Your task to perform on an android device: Search for the new nike air max shoes on Nike. Image 0: 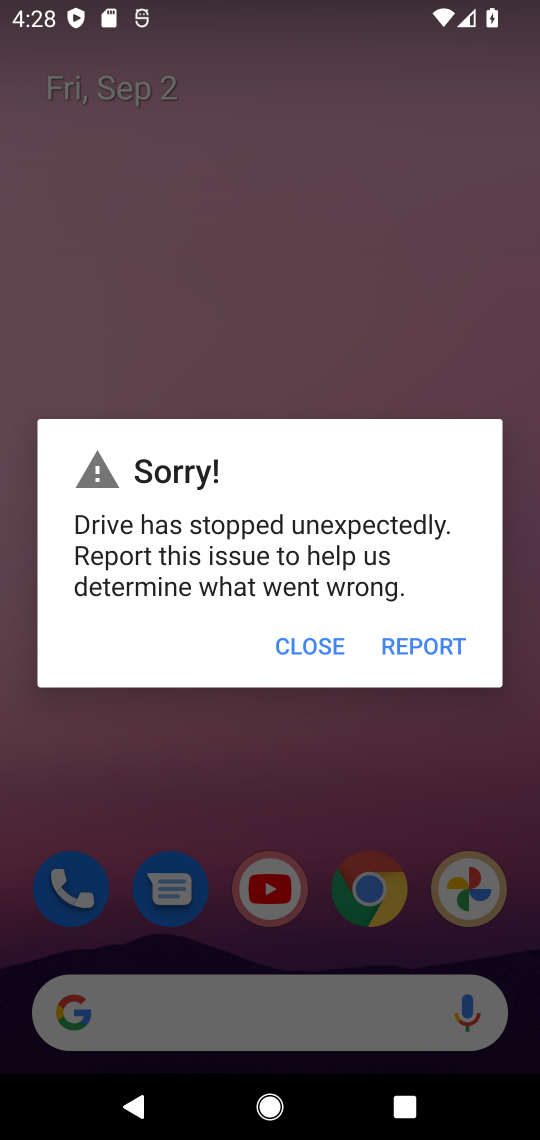
Step 0: click (297, 639)
Your task to perform on an android device: Search for the new nike air max shoes on Nike. Image 1: 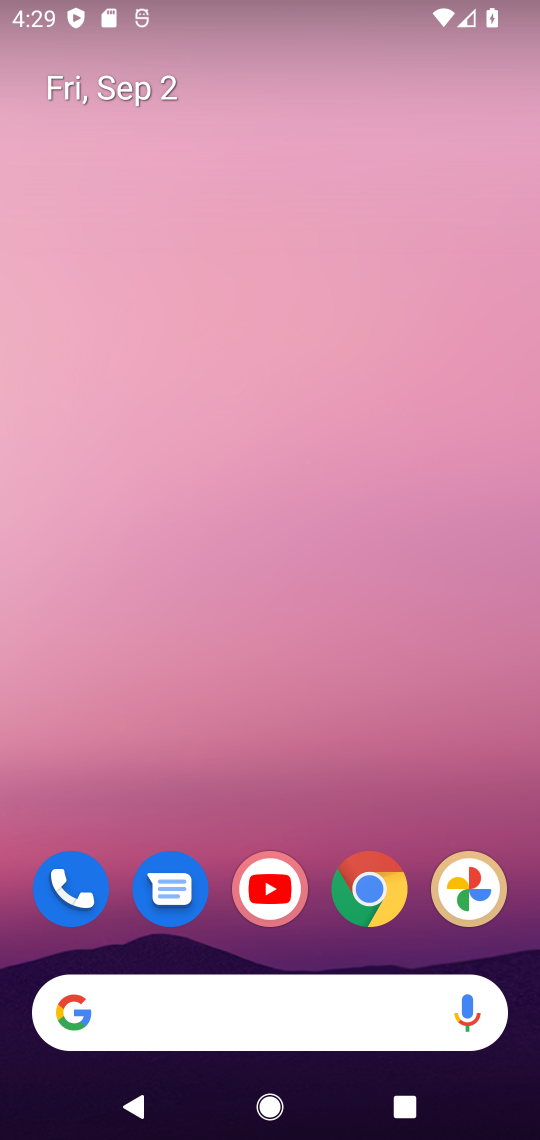
Step 1: click (385, 895)
Your task to perform on an android device: Search for the new nike air max shoes on Nike. Image 2: 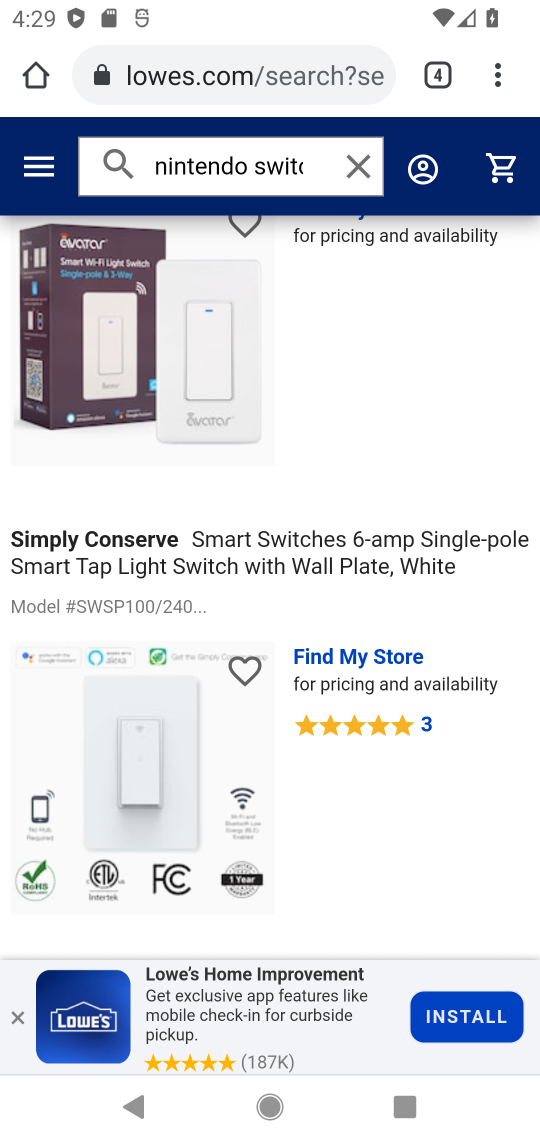
Step 2: click (364, 170)
Your task to perform on an android device: Search for the new nike air max shoes on Nike. Image 3: 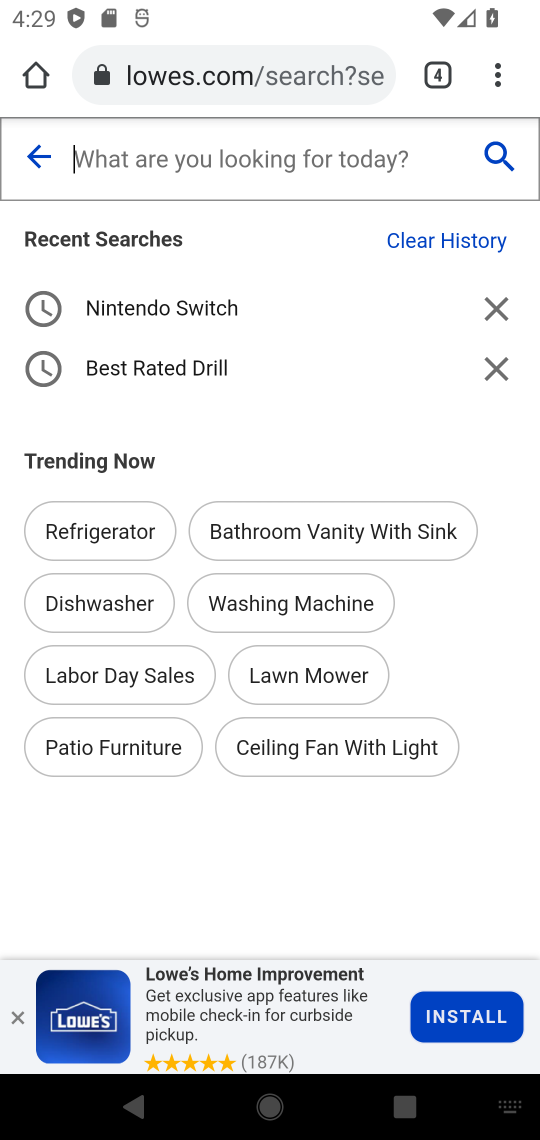
Step 3: click (439, 68)
Your task to perform on an android device: Search for the new nike air max shoes on Nike. Image 4: 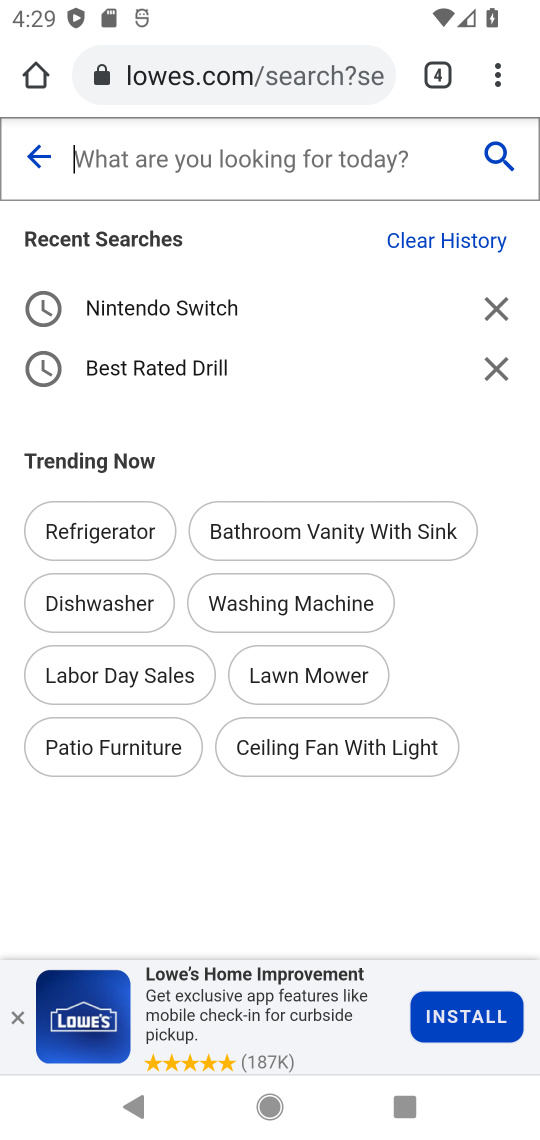
Step 4: click (449, 72)
Your task to perform on an android device: Search for the new nike air max shoes on Nike. Image 5: 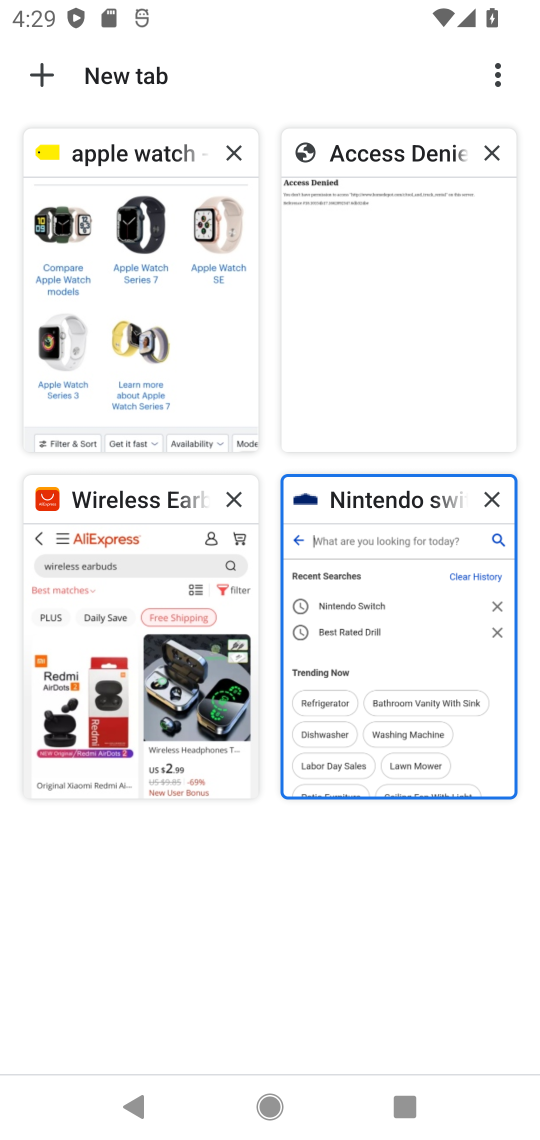
Step 5: click (32, 70)
Your task to perform on an android device: Search for the new nike air max shoes on Nike. Image 6: 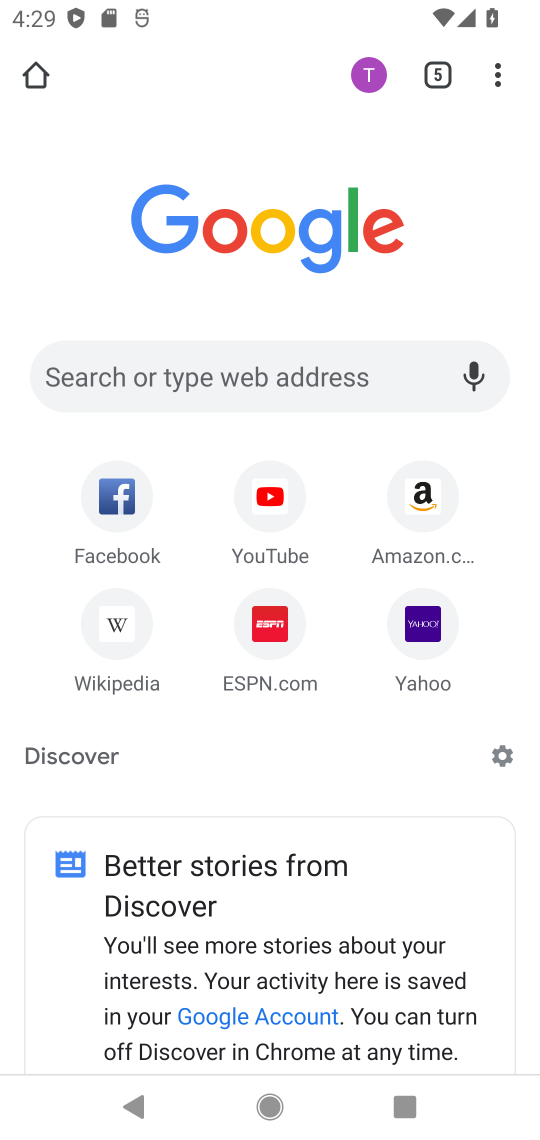
Step 6: click (248, 369)
Your task to perform on an android device: Search for the new nike air max shoes on Nike. Image 7: 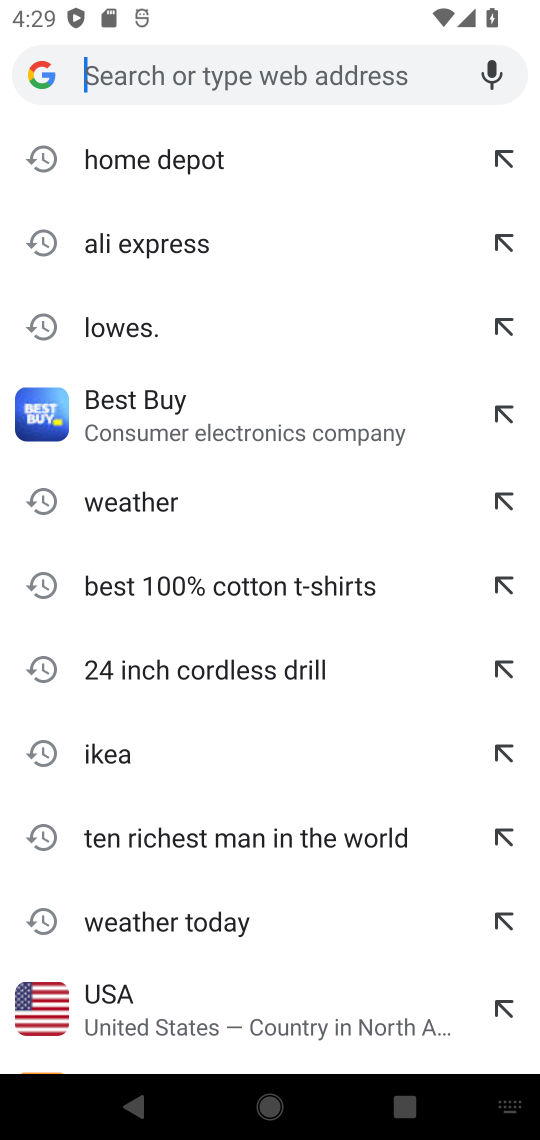
Step 7: type "Nike."
Your task to perform on an android device: Search for the new nike air max shoes on Nike. Image 8: 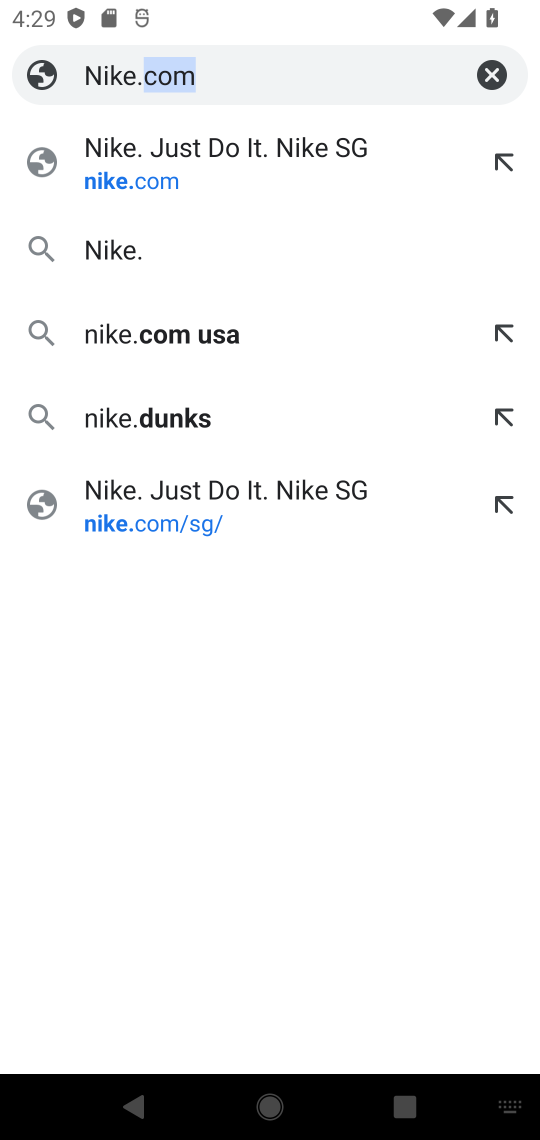
Step 8: click (172, 354)
Your task to perform on an android device: Search for the new nike air max shoes on Nike. Image 9: 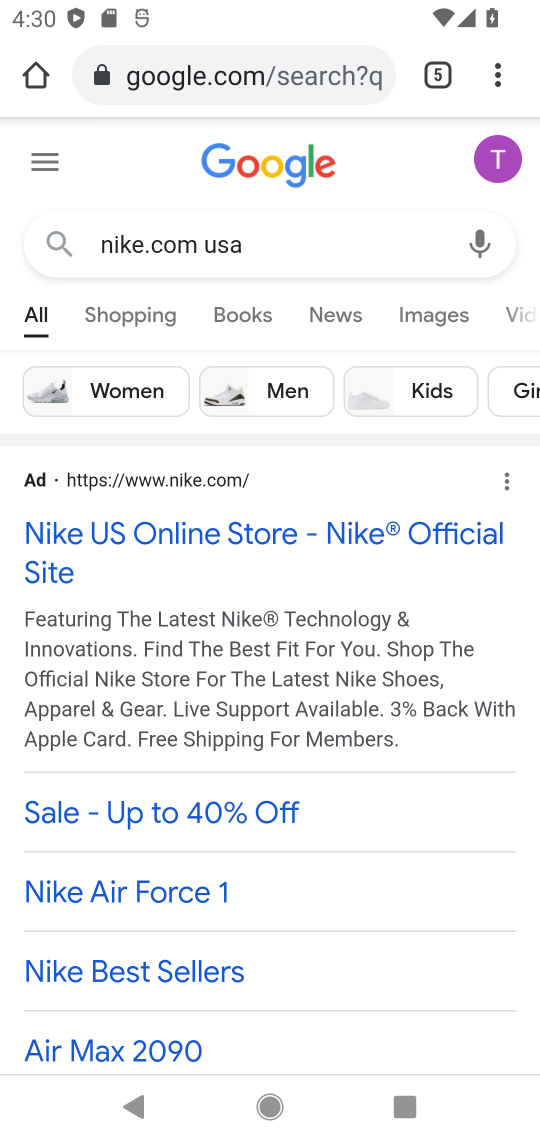
Step 9: drag from (173, 673) to (190, 424)
Your task to perform on an android device: Search for the new nike air max shoes on Nike. Image 10: 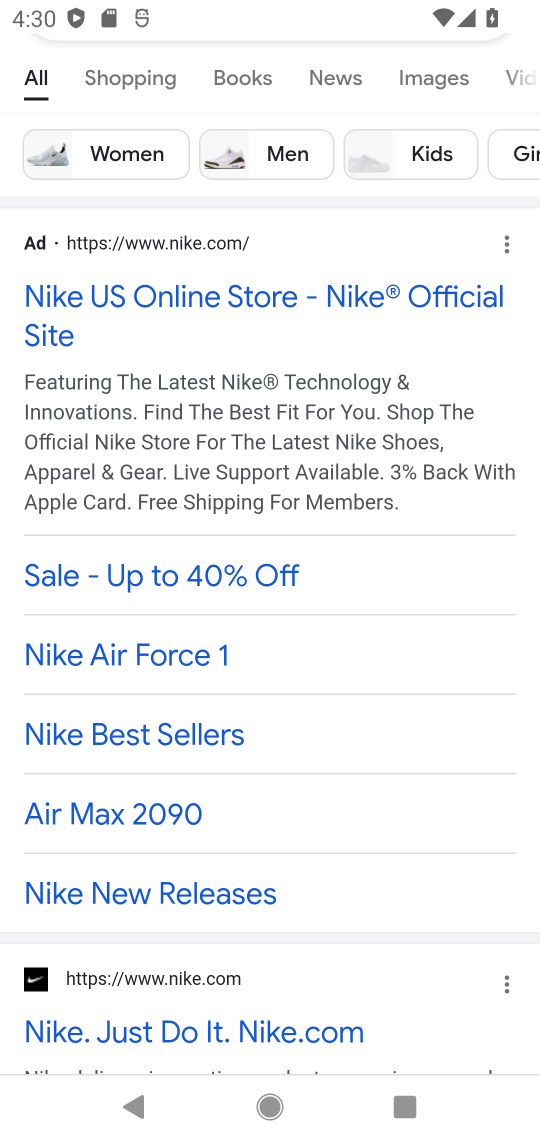
Step 10: click (202, 1025)
Your task to perform on an android device: Search for the new nike air max shoes on Nike. Image 11: 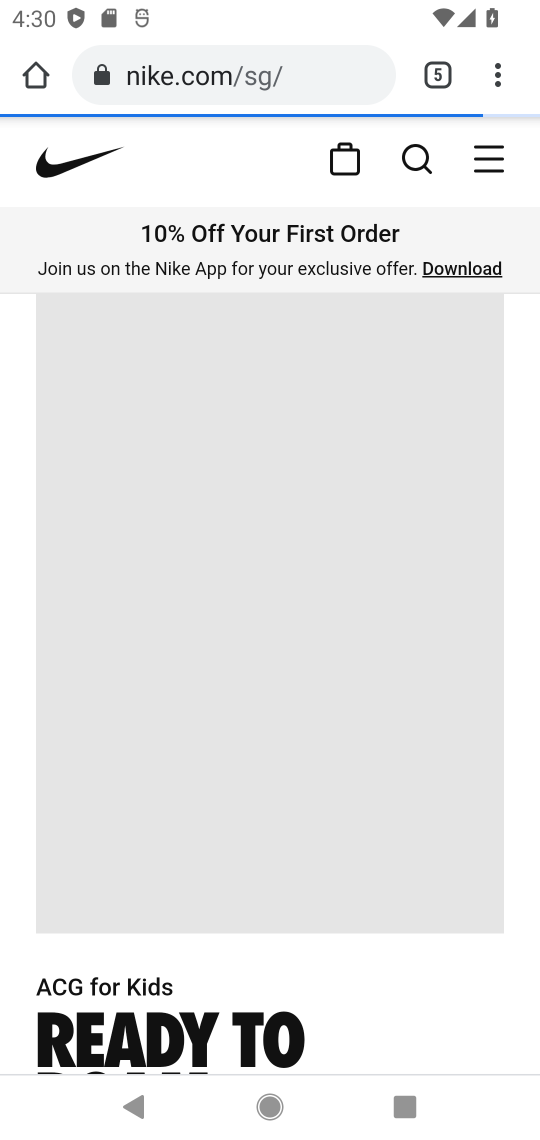
Step 11: drag from (198, 956) to (221, 876)
Your task to perform on an android device: Search for the new nike air max shoes on Nike. Image 12: 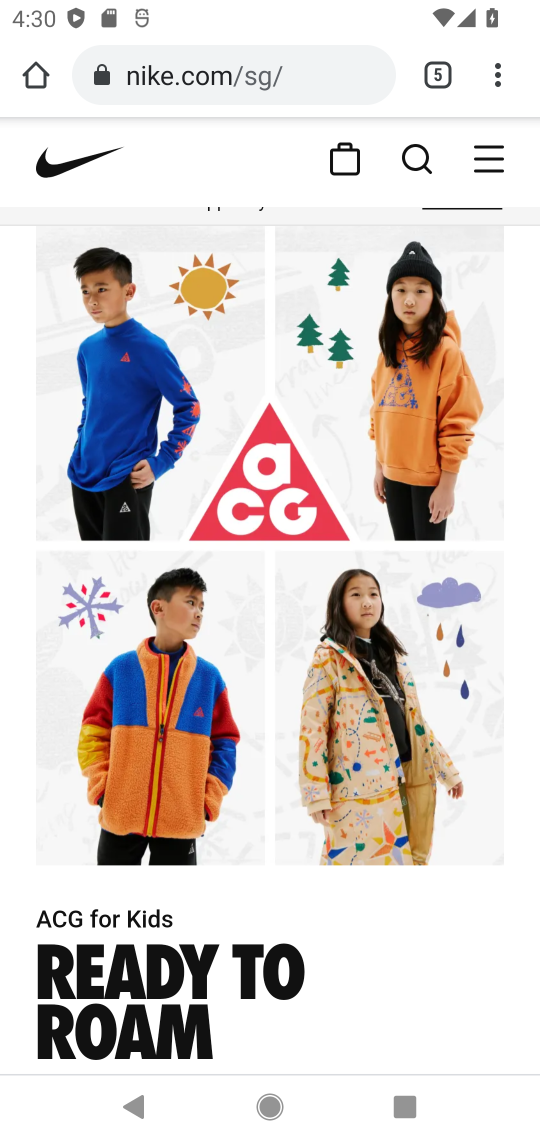
Step 12: click (418, 160)
Your task to perform on an android device: Search for the new nike air max shoes on Nike. Image 13: 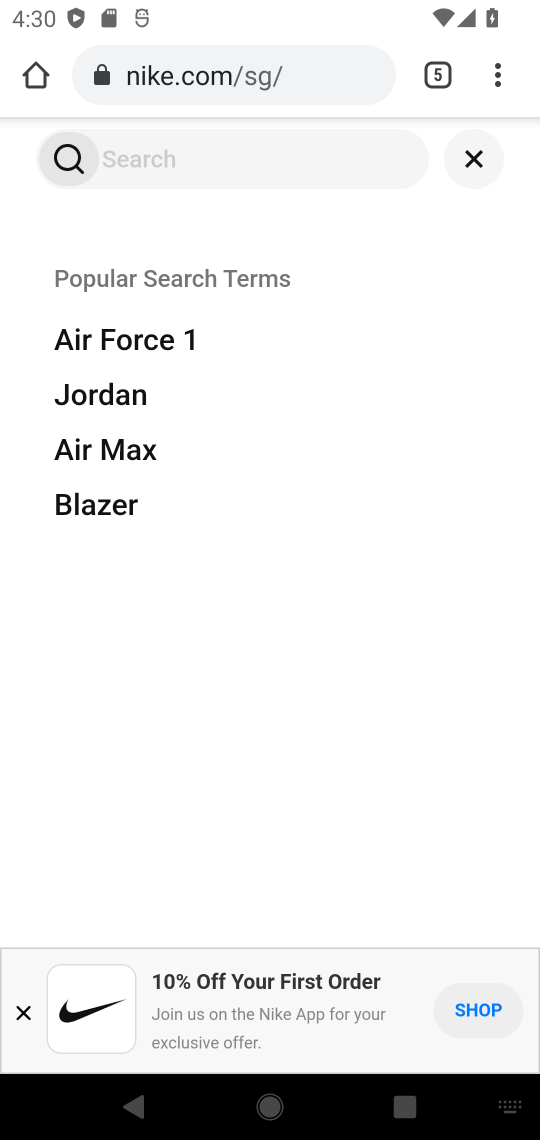
Step 13: type "nike air max "
Your task to perform on an android device: Search for the new nike air max shoes on Nike. Image 14: 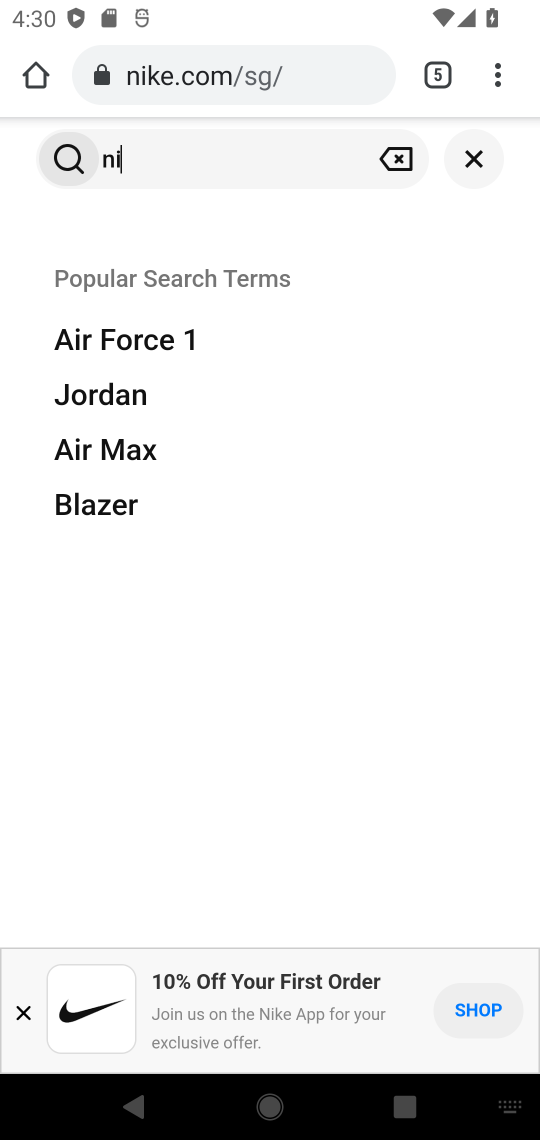
Step 14: type ""
Your task to perform on an android device: Search for the new nike air max shoes on Nike. Image 15: 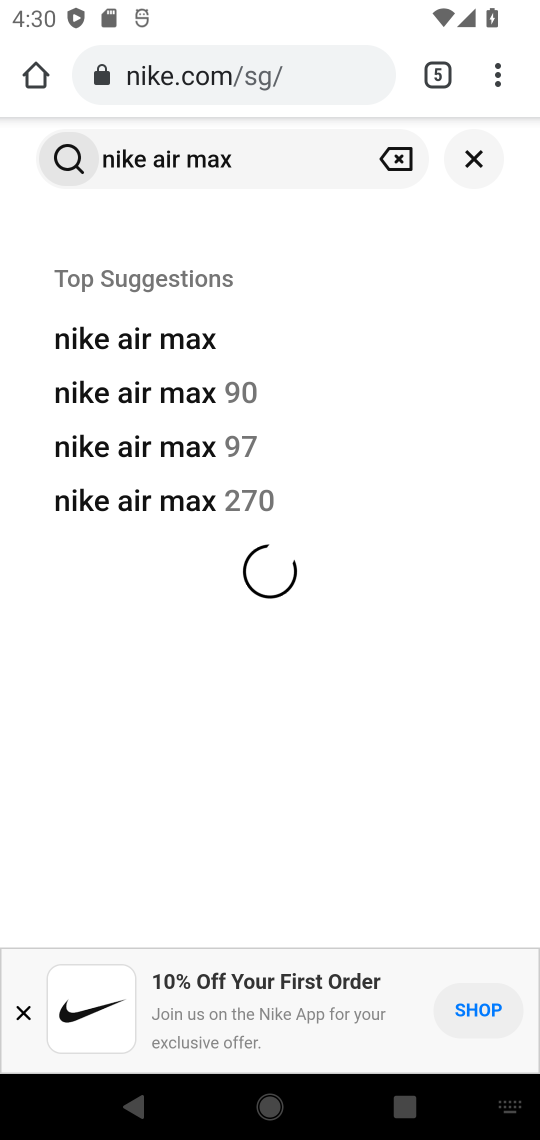
Step 15: click (100, 325)
Your task to perform on an android device: Search for the new nike air max shoes on Nike. Image 16: 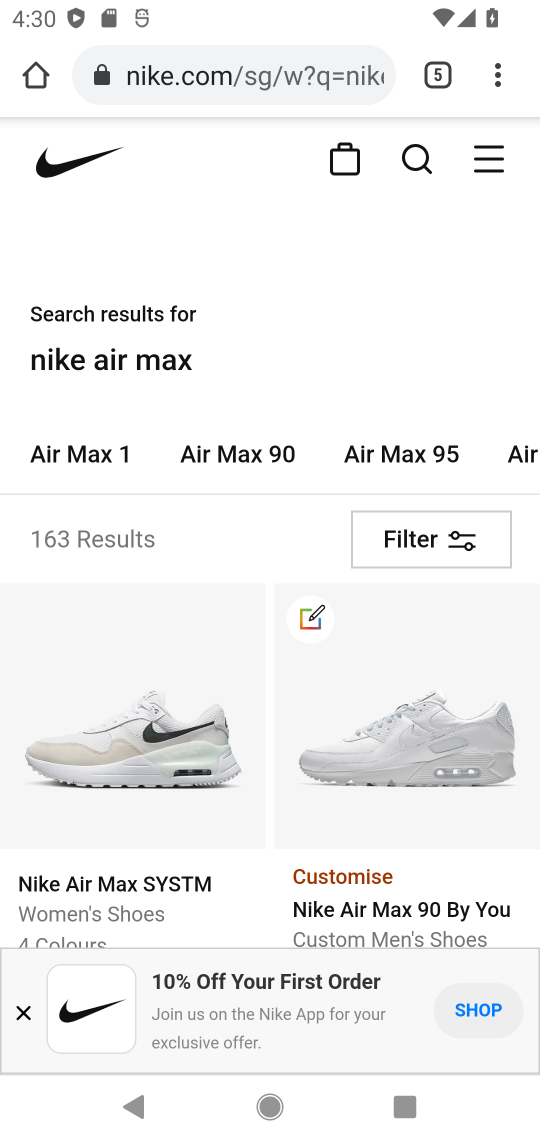
Step 16: task complete